Your task to perform on an android device: add a label to a message in the gmail app Image 0: 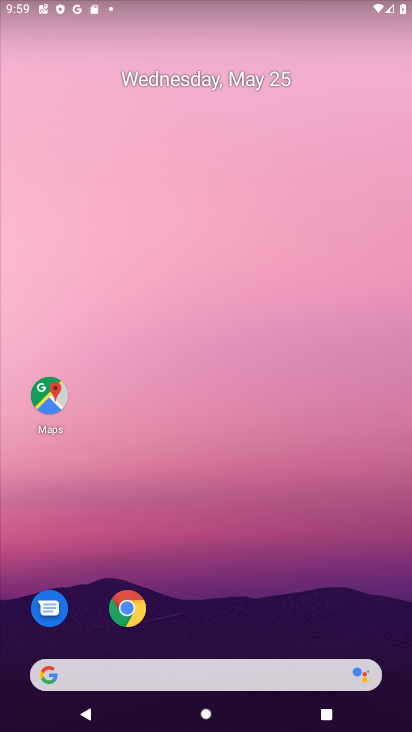
Step 0: drag from (300, 634) to (259, 2)
Your task to perform on an android device: add a label to a message in the gmail app Image 1: 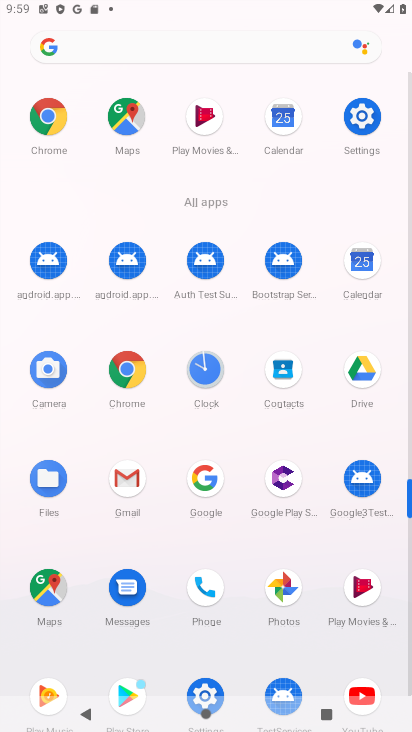
Step 1: click (126, 482)
Your task to perform on an android device: add a label to a message in the gmail app Image 2: 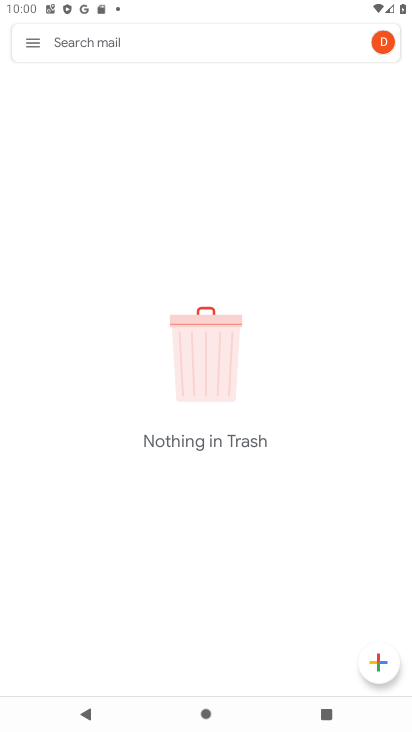
Step 2: click (32, 42)
Your task to perform on an android device: add a label to a message in the gmail app Image 3: 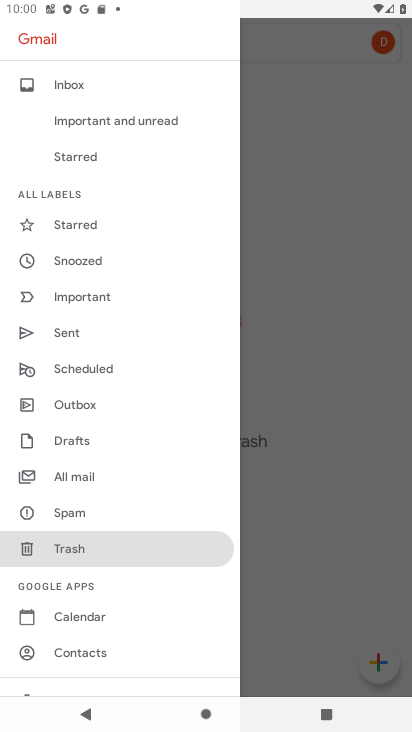
Step 3: click (78, 482)
Your task to perform on an android device: add a label to a message in the gmail app Image 4: 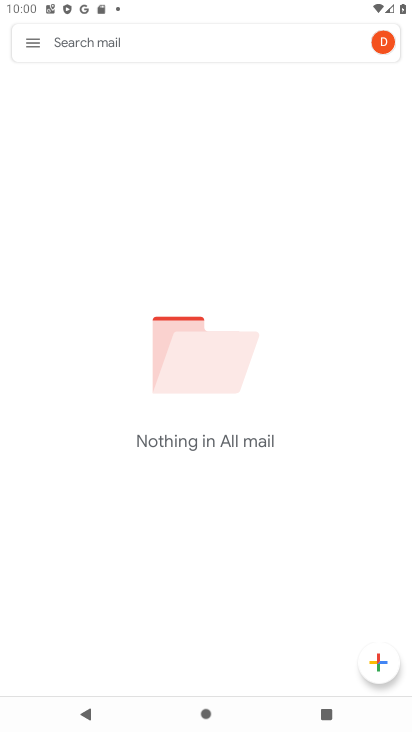
Step 4: task complete